Your task to perform on an android device: change notification settings in the gmail app Image 0: 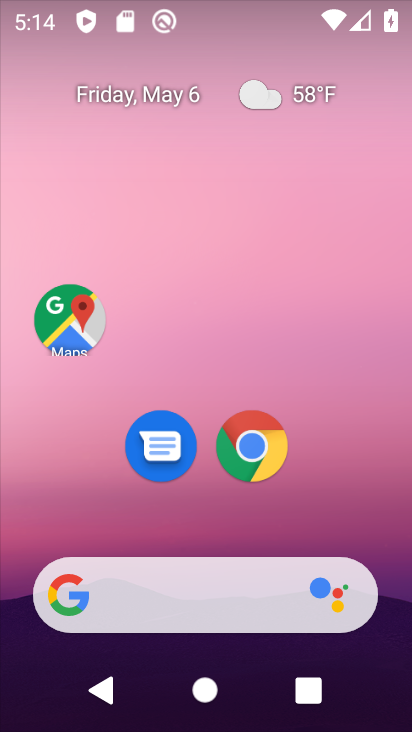
Step 0: drag from (353, 490) to (263, 65)
Your task to perform on an android device: change notification settings in the gmail app Image 1: 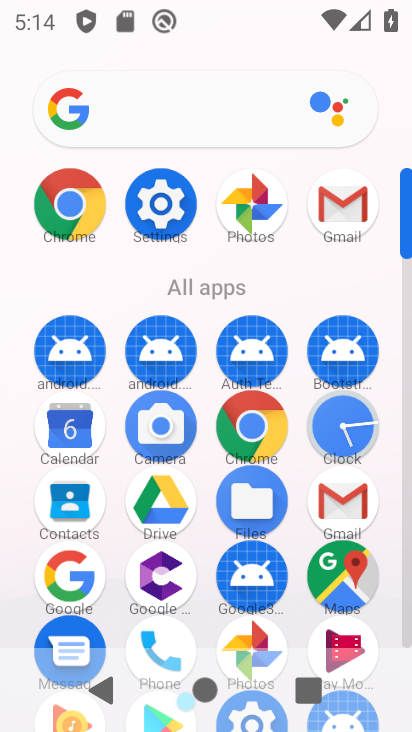
Step 1: click (335, 207)
Your task to perform on an android device: change notification settings in the gmail app Image 2: 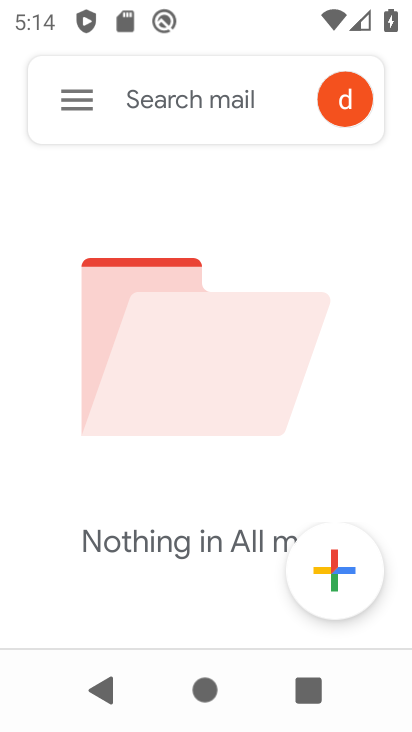
Step 2: click (83, 101)
Your task to perform on an android device: change notification settings in the gmail app Image 3: 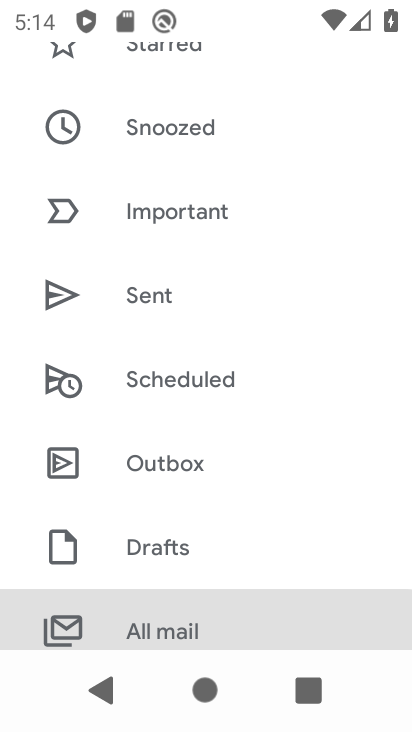
Step 3: drag from (274, 563) to (252, 245)
Your task to perform on an android device: change notification settings in the gmail app Image 4: 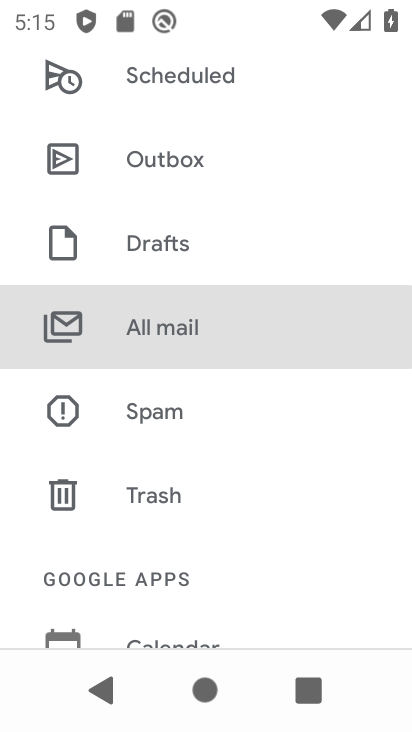
Step 4: drag from (243, 526) to (242, 219)
Your task to perform on an android device: change notification settings in the gmail app Image 5: 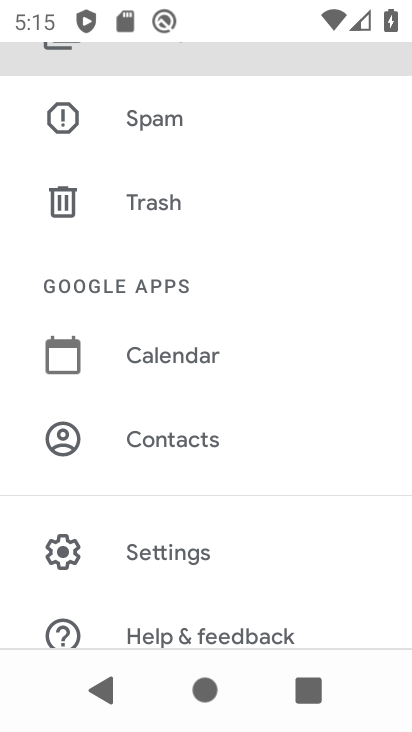
Step 5: click (168, 550)
Your task to perform on an android device: change notification settings in the gmail app Image 6: 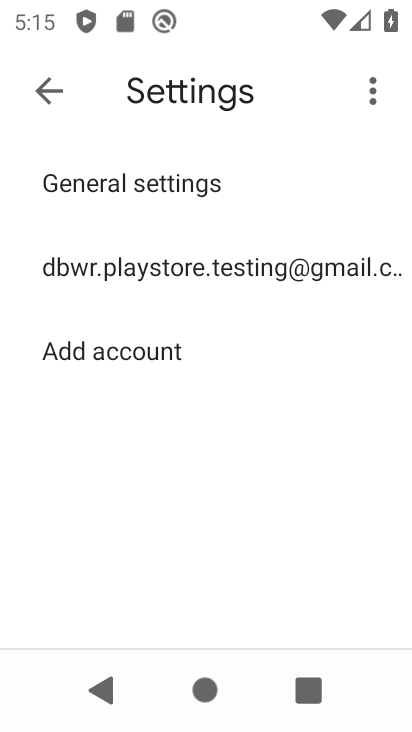
Step 6: click (118, 185)
Your task to perform on an android device: change notification settings in the gmail app Image 7: 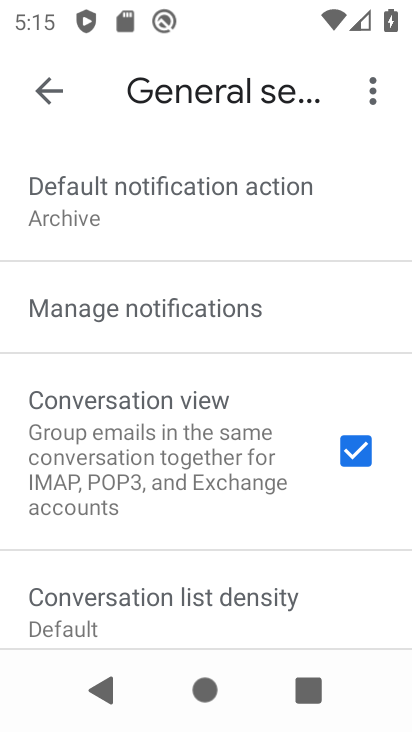
Step 7: click (106, 305)
Your task to perform on an android device: change notification settings in the gmail app Image 8: 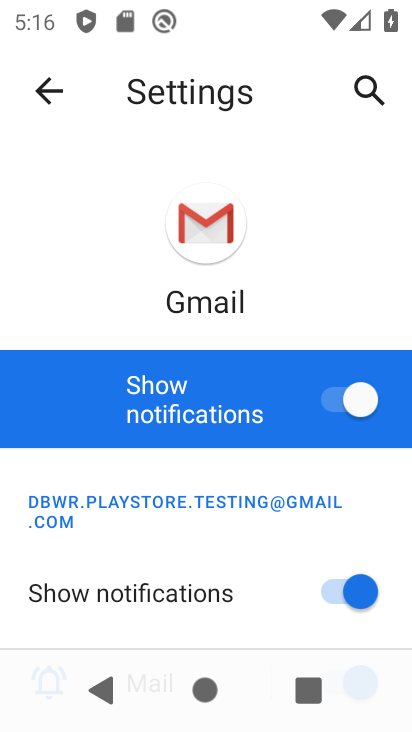
Step 8: click (365, 401)
Your task to perform on an android device: change notification settings in the gmail app Image 9: 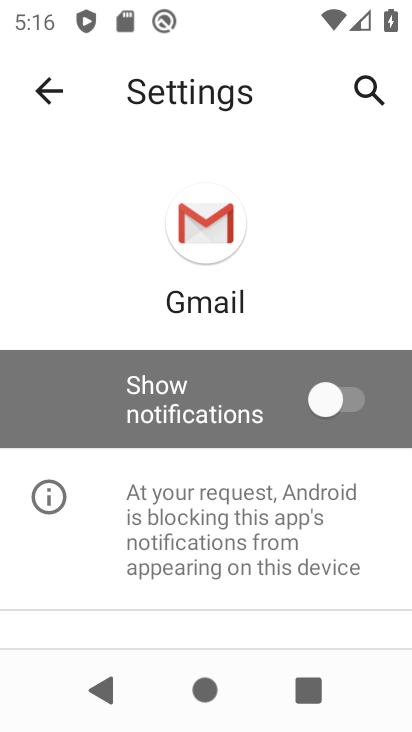
Step 9: task complete